Your task to perform on an android device: Toggle the flashlight Image 0: 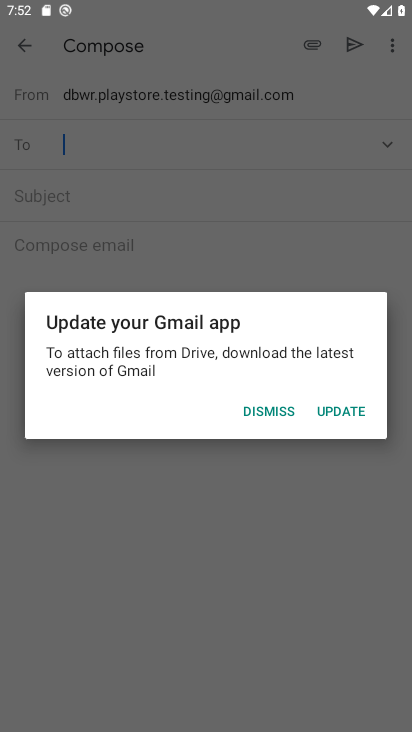
Step 0: press home button
Your task to perform on an android device: Toggle the flashlight Image 1: 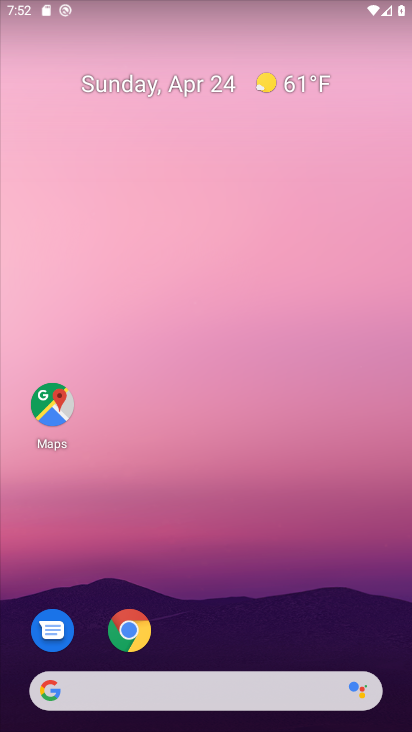
Step 1: drag from (286, 3) to (276, 349)
Your task to perform on an android device: Toggle the flashlight Image 2: 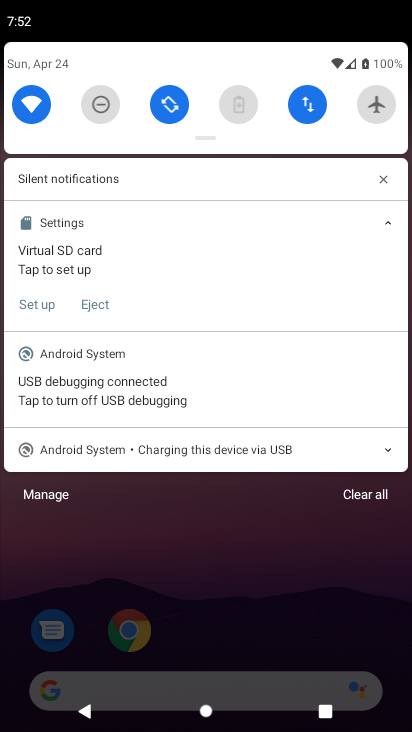
Step 2: drag from (206, 105) to (206, 410)
Your task to perform on an android device: Toggle the flashlight Image 3: 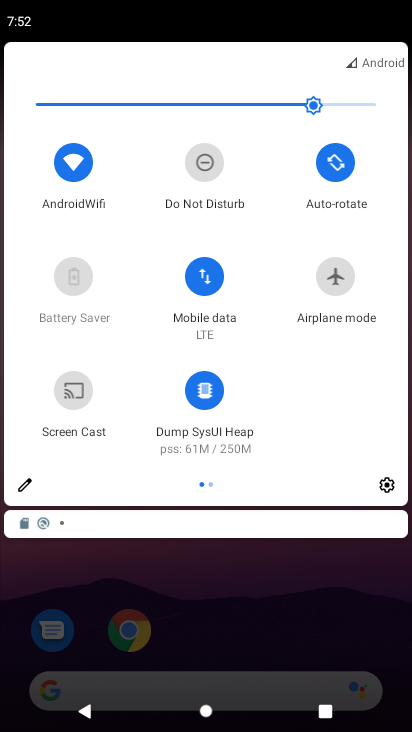
Step 3: click (30, 486)
Your task to perform on an android device: Toggle the flashlight Image 4: 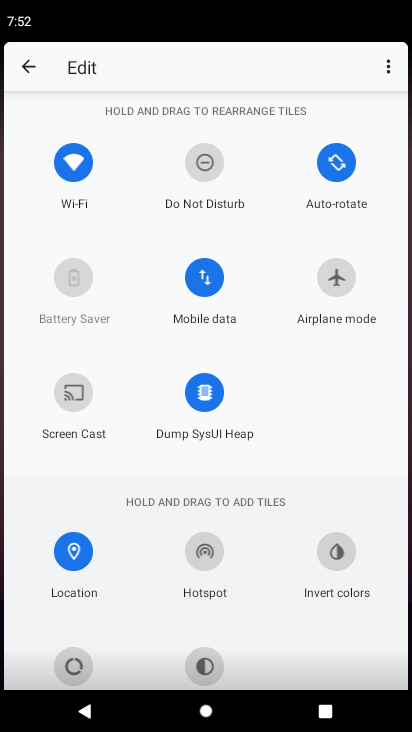
Step 4: task complete